Your task to perform on an android device: see tabs open on other devices in the chrome app Image 0: 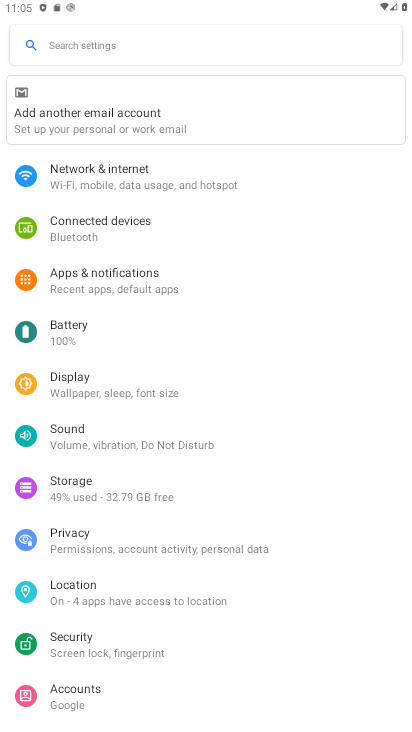
Step 0: press home button
Your task to perform on an android device: see tabs open on other devices in the chrome app Image 1: 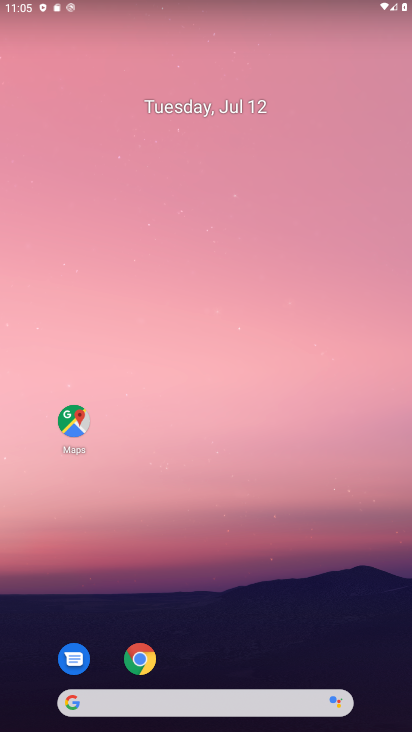
Step 1: click (139, 655)
Your task to perform on an android device: see tabs open on other devices in the chrome app Image 2: 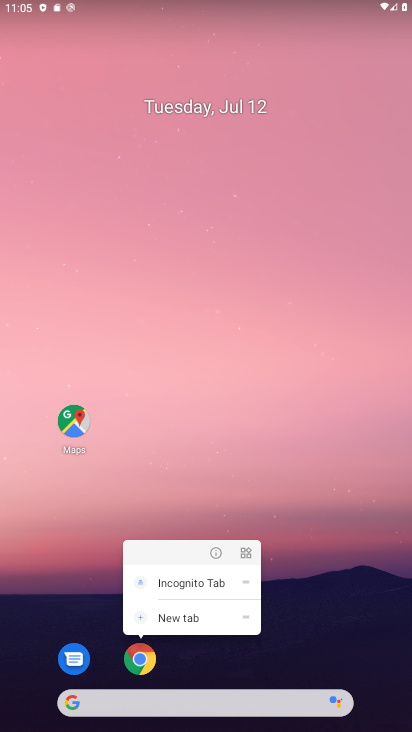
Step 2: click (139, 660)
Your task to perform on an android device: see tabs open on other devices in the chrome app Image 3: 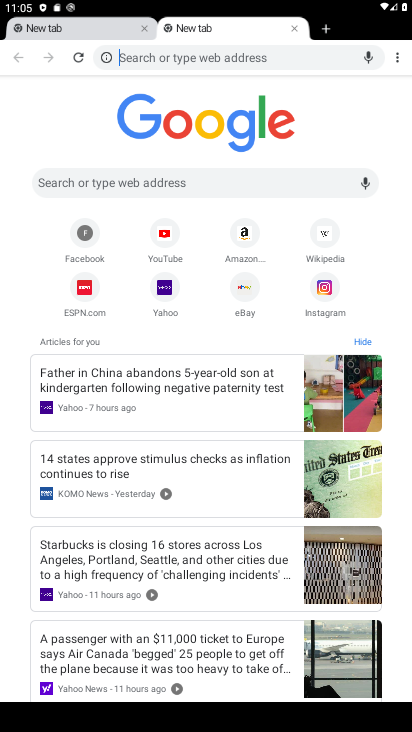
Step 3: task complete